Your task to perform on an android device: toggle javascript in the chrome app Image 0: 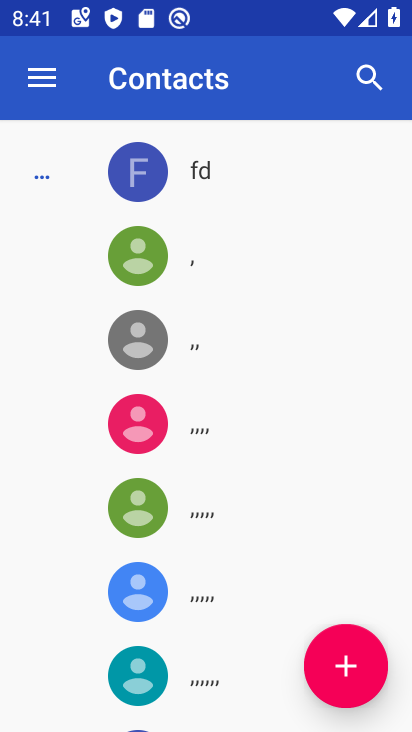
Step 0: task complete